Your task to perform on an android device: toggle show notifications on the lock screen Image 0: 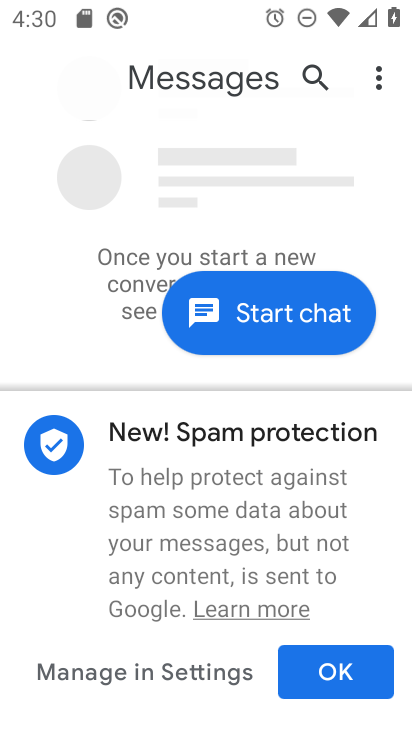
Step 0: press home button
Your task to perform on an android device: toggle show notifications on the lock screen Image 1: 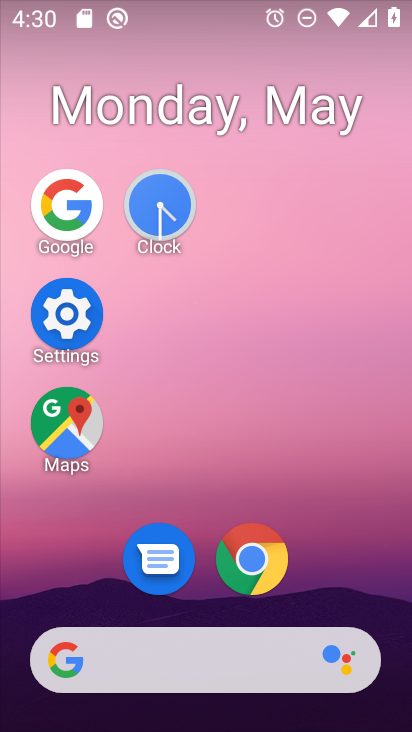
Step 1: click (83, 319)
Your task to perform on an android device: toggle show notifications on the lock screen Image 2: 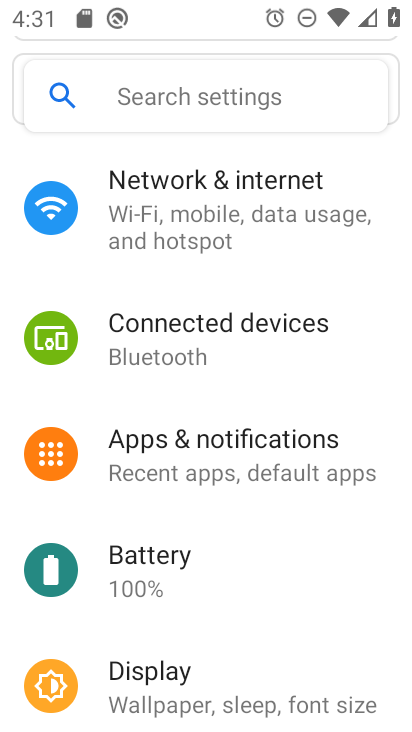
Step 2: click (233, 434)
Your task to perform on an android device: toggle show notifications on the lock screen Image 3: 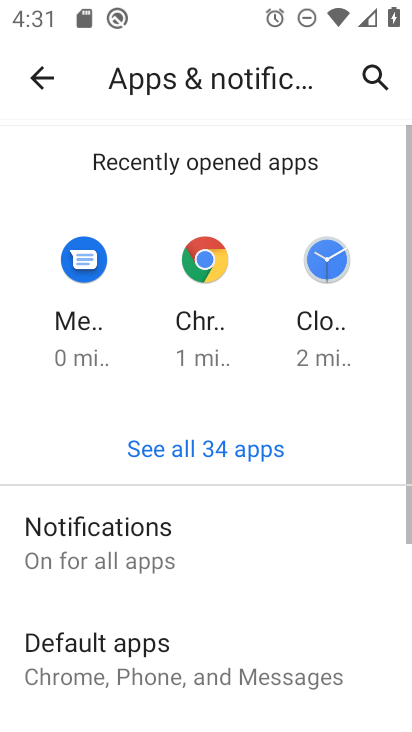
Step 3: click (221, 552)
Your task to perform on an android device: toggle show notifications on the lock screen Image 4: 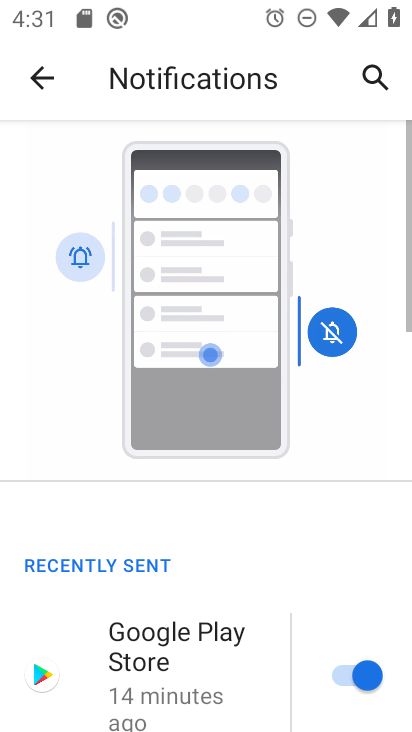
Step 4: drag from (209, 636) to (237, 188)
Your task to perform on an android device: toggle show notifications on the lock screen Image 5: 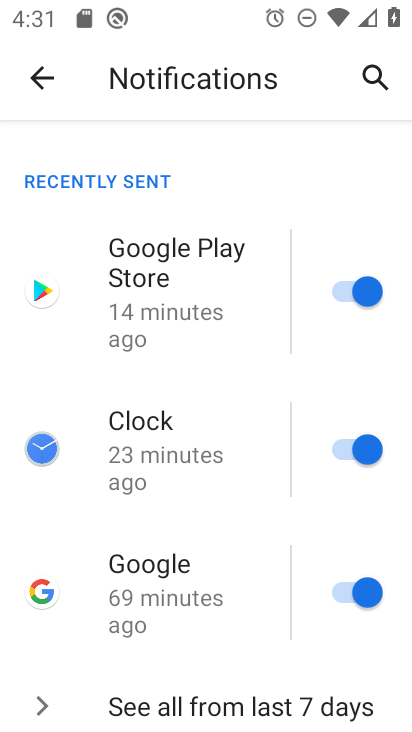
Step 5: drag from (188, 551) to (204, 152)
Your task to perform on an android device: toggle show notifications on the lock screen Image 6: 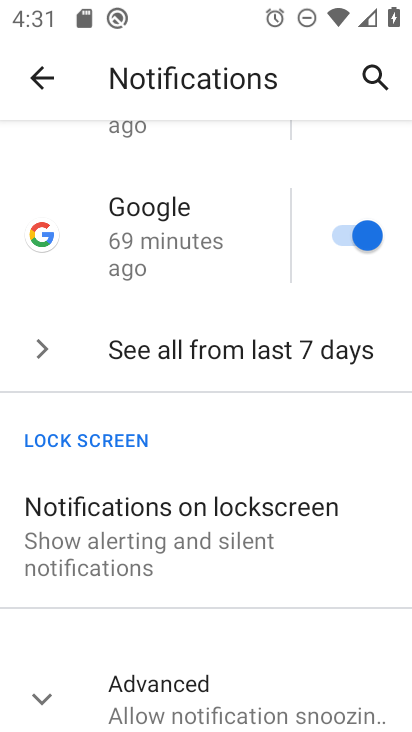
Step 6: click (220, 500)
Your task to perform on an android device: toggle show notifications on the lock screen Image 7: 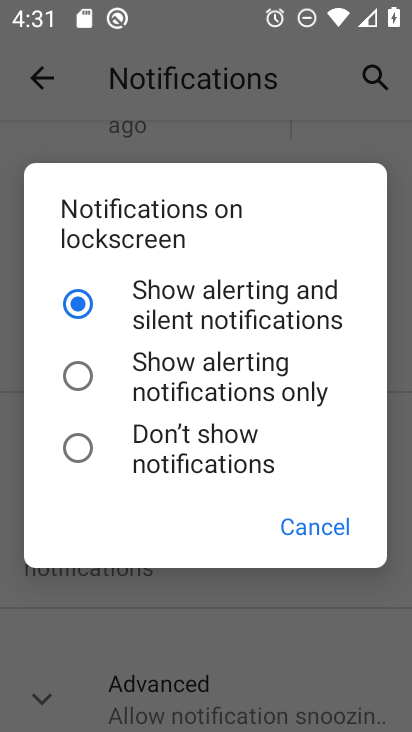
Step 7: click (195, 373)
Your task to perform on an android device: toggle show notifications on the lock screen Image 8: 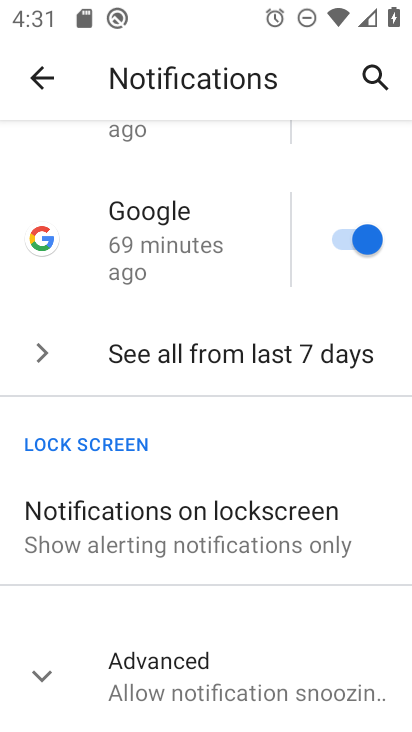
Step 8: task complete